Your task to perform on an android device: set default search engine in the chrome app Image 0: 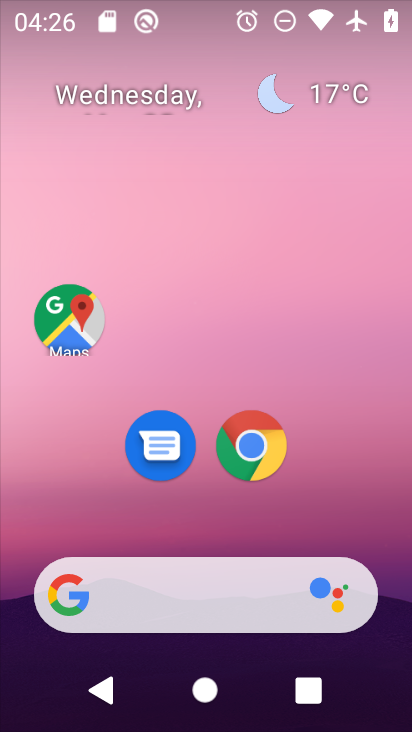
Step 0: drag from (210, 597) to (238, 161)
Your task to perform on an android device: set default search engine in the chrome app Image 1: 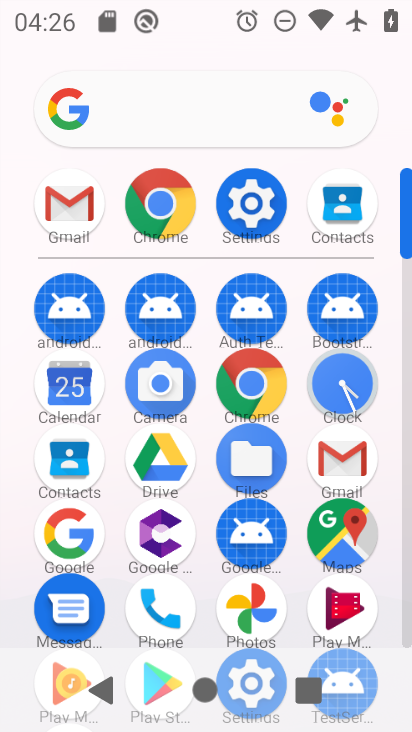
Step 1: click (251, 382)
Your task to perform on an android device: set default search engine in the chrome app Image 2: 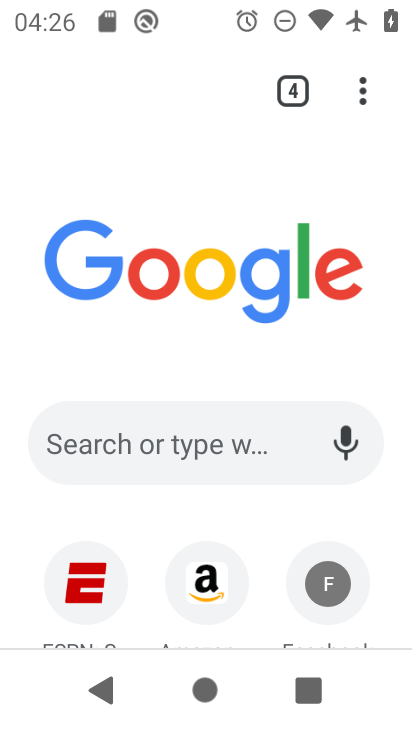
Step 2: drag from (364, 96) to (121, 476)
Your task to perform on an android device: set default search engine in the chrome app Image 3: 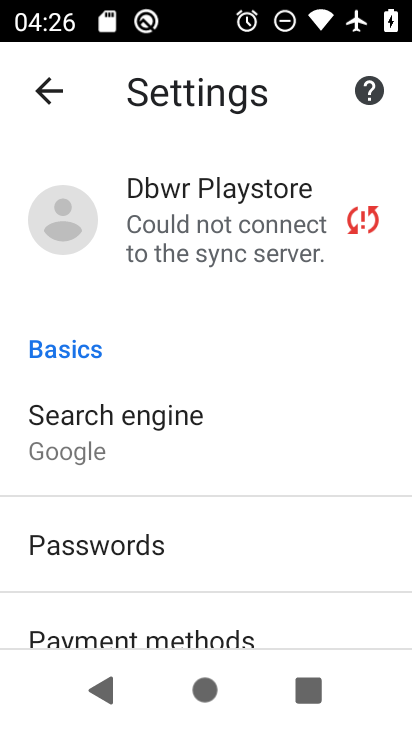
Step 3: drag from (161, 596) to (244, 195)
Your task to perform on an android device: set default search engine in the chrome app Image 4: 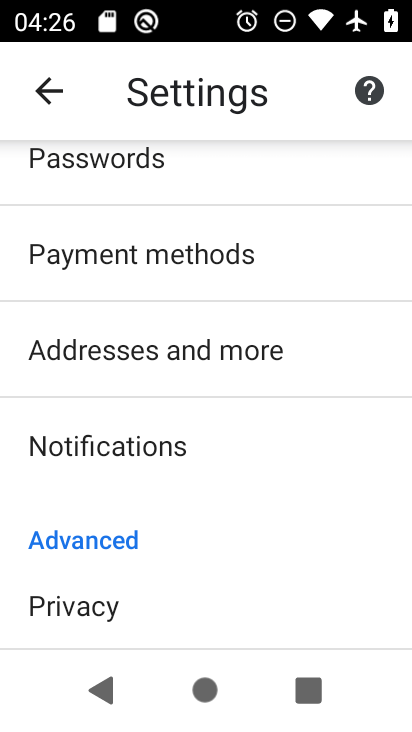
Step 4: drag from (125, 257) to (137, 702)
Your task to perform on an android device: set default search engine in the chrome app Image 5: 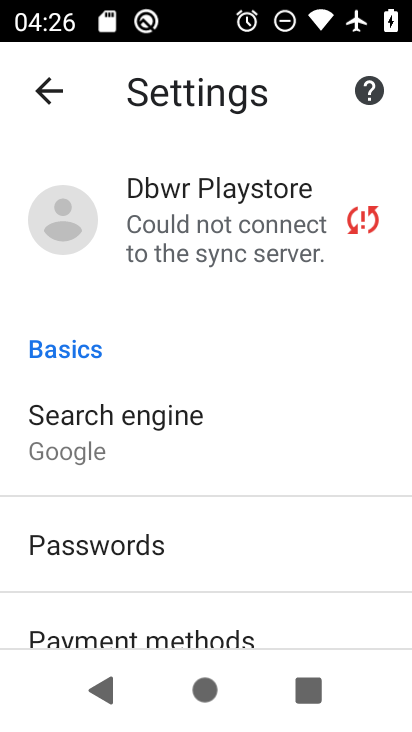
Step 5: click (157, 410)
Your task to perform on an android device: set default search engine in the chrome app Image 6: 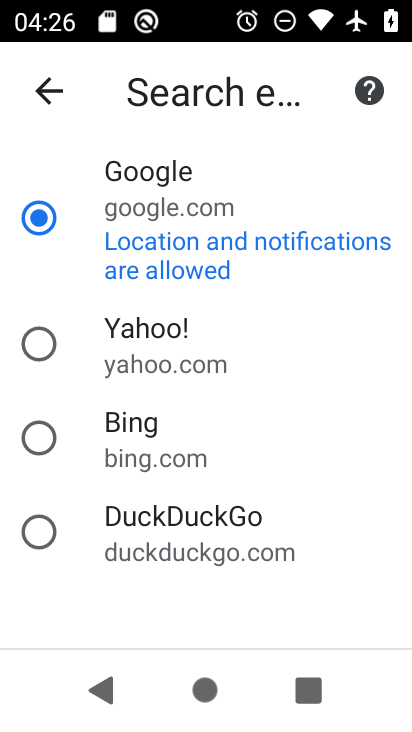
Step 6: click (113, 322)
Your task to perform on an android device: set default search engine in the chrome app Image 7: 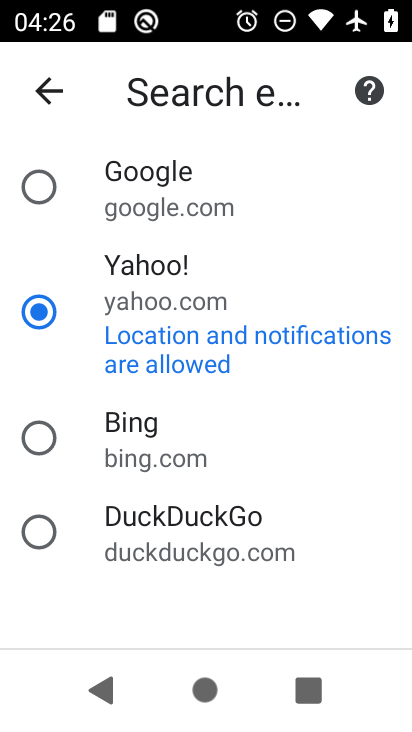
Step 7: task complete